Your task to perform on an android device: remove spam from my inbox in the gmail app Image 0: 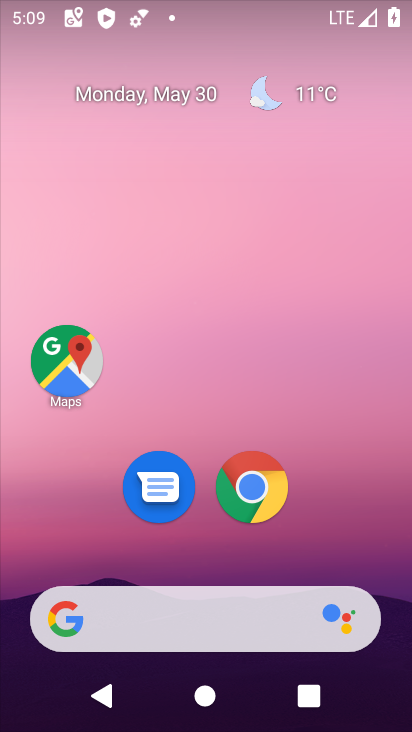
Step 0: drag from (401, 626) to (332, 50)
Your task to perform on an android device: remove spam from my inbox in the gmail app Image 1: 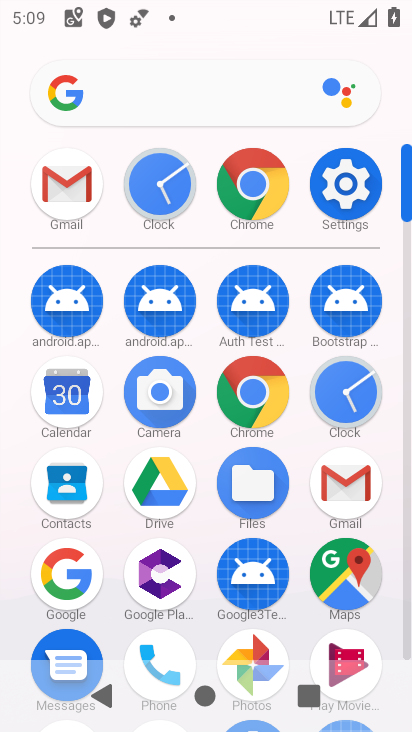
Step 1: click (408, 640)
Your task to perform on an android device: remove spam from my inbox in the gmail app Image 2: 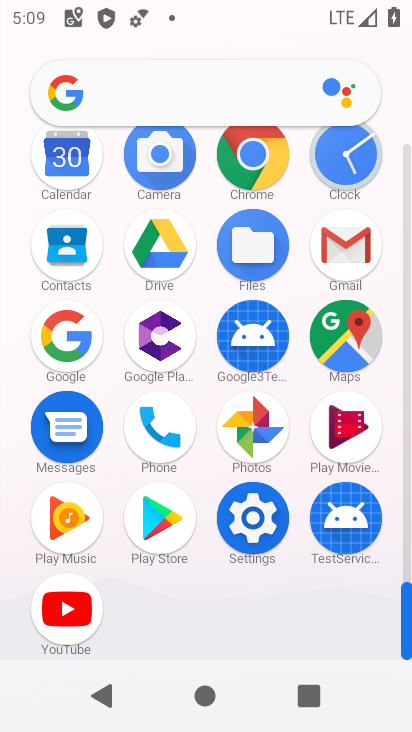
Step 2: click (344, 244)
Your task to perform on an android device: remove spam from my inbox in the gmail app Image 3: 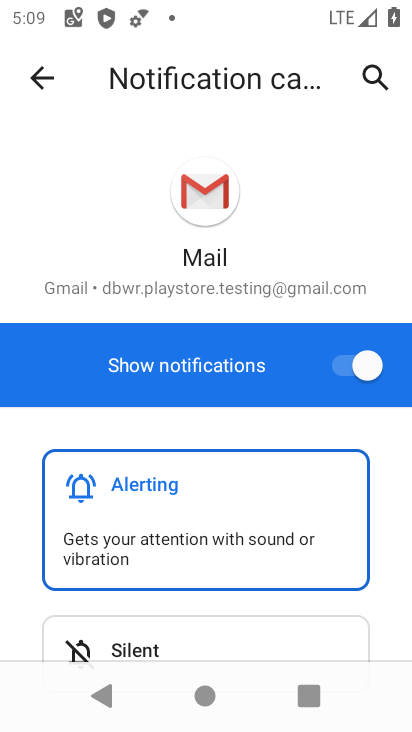
Step 3: press back button
Your task to perform on an android device: remove spam from my inbox in the gmail app Image 4: 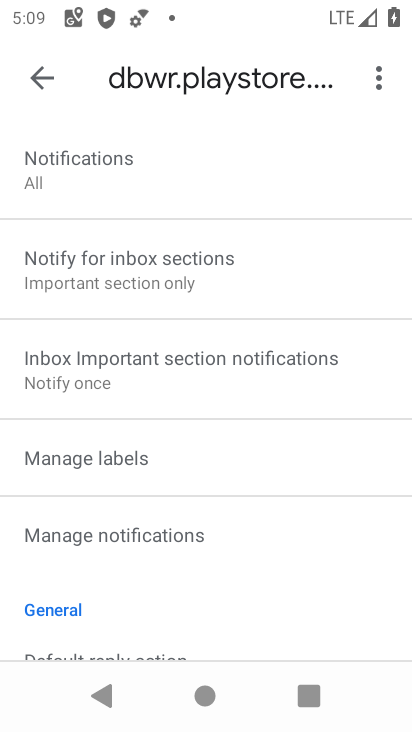
Step 4: press back button
Your task to perform on an android device: remove spam from my inbox in the gmail app Image 5: 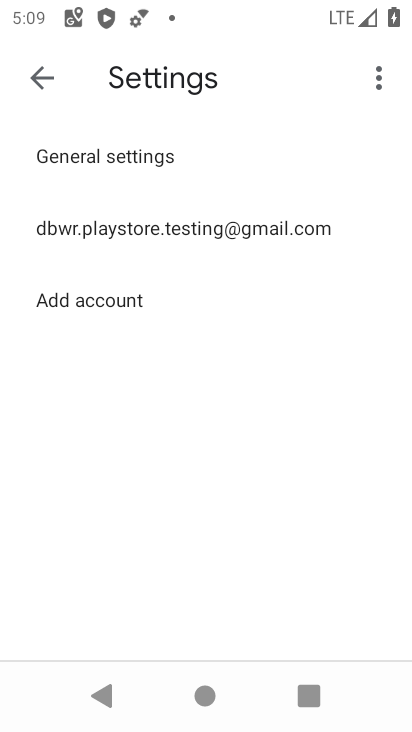
Step 5: press back button
Your task to perform on an android device: remove spam from my inbox in the gmail app Image 6: 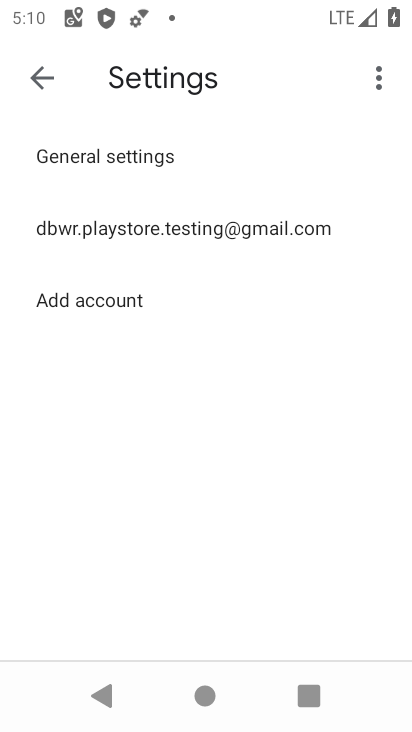
Step 6: press back button
Your task to perform on an android device: remove spam from my inbox in the gmail app Image 7: 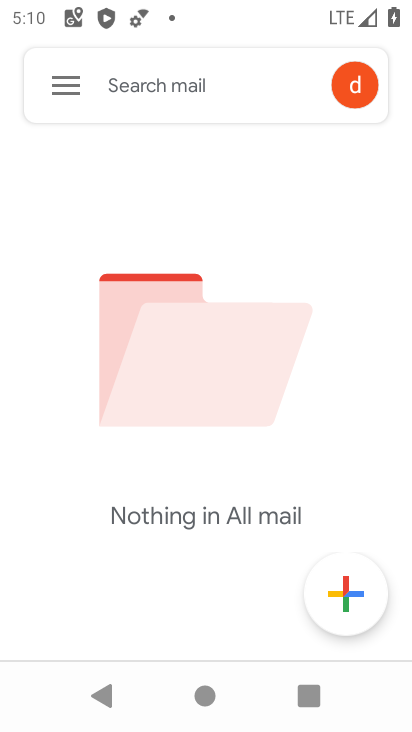
Step 7: click (53, 77)
Your task to perform on an android device: remove spam from my inbox in the gmail app Image 8: 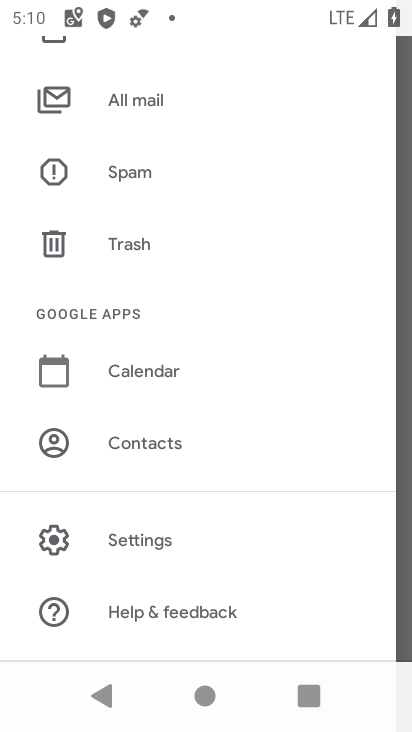
Step 8: drag from (211, 235) to (181, 462)
Your task to perform on an android device: remove spam from my inbox in the gmail app Image 9: 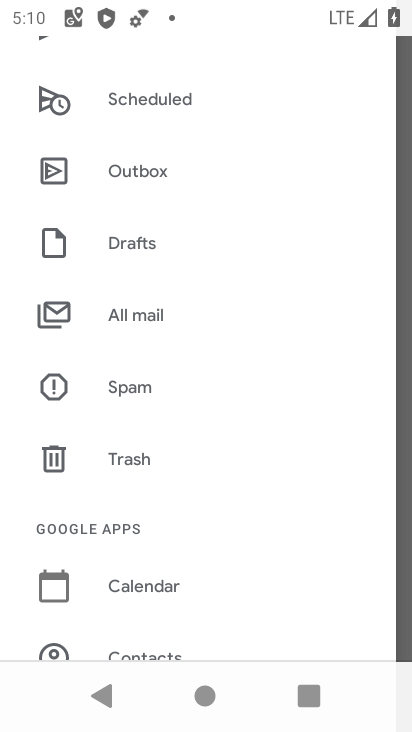
Step 9: click (132, 389)
Your task to perform on an android device: remove spam from my inbox in the gmail app Image 10: 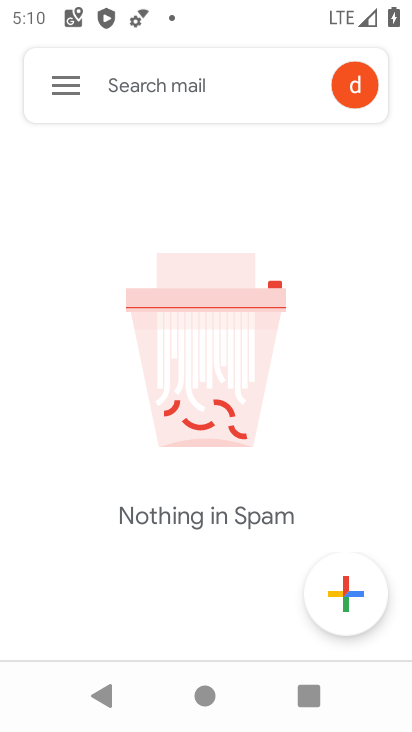
Step 10: task complete